Your task to perform on an android device: Go to ESPN.com Image 0: 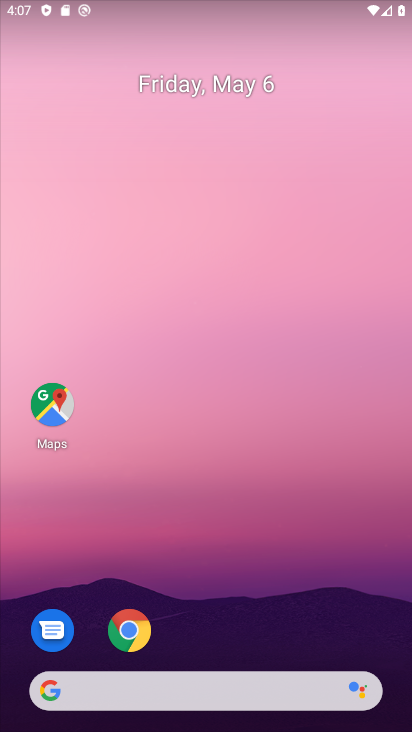
Step 0: drag from (158, 611) to (160, 55)
Your task to perform on an android device: Go to ESPN.com Image 1: 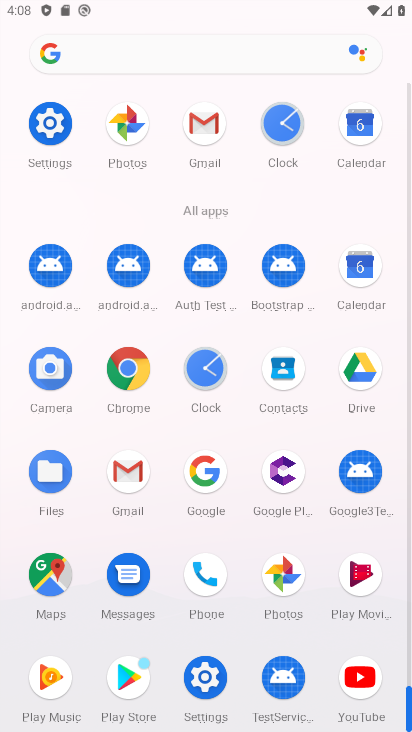
Step 1: click (144, 384)
Your task to perform on an android device: Go to ESPN.com Image 2: 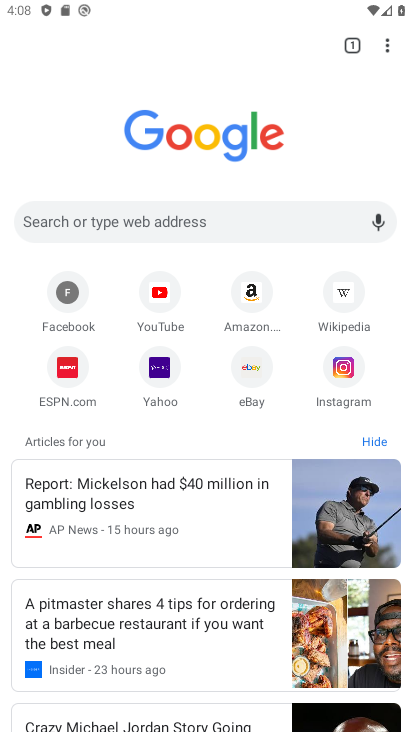
Step 2: click (72, 371)
Your task to perform on an android device: Go to ESPN.com Image 3: 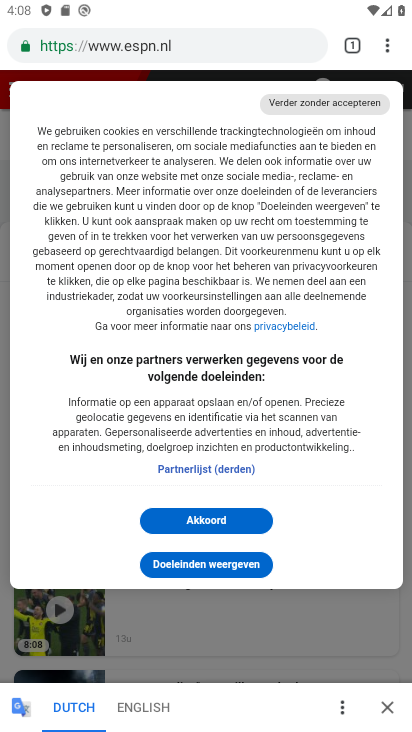
Step 3: click (196, 519)
Your task to perform on an android device: Go to ESPN.com Image 4: 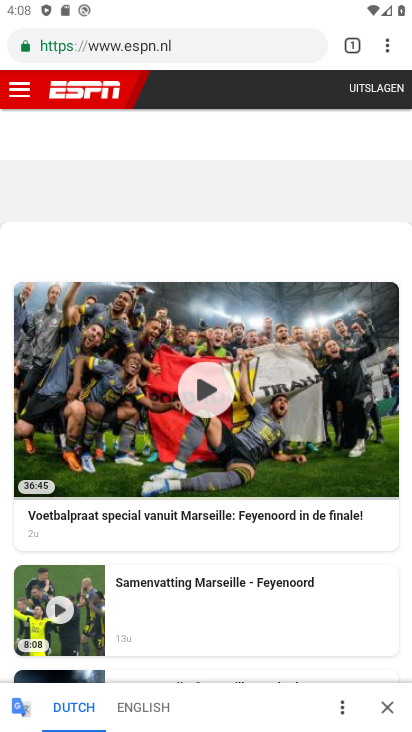
Step 4: task complete